Your task to perform on an android device: star an email in the gmail app Image 0: 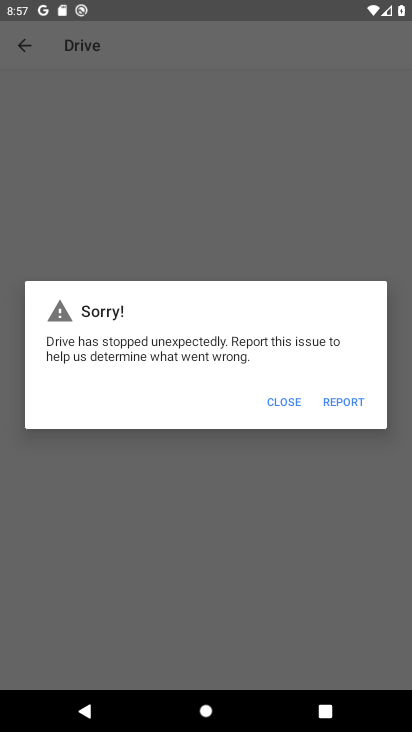
Step 0: press home button
Your task to perform on an android device: star an email in the gmail app Image 1: 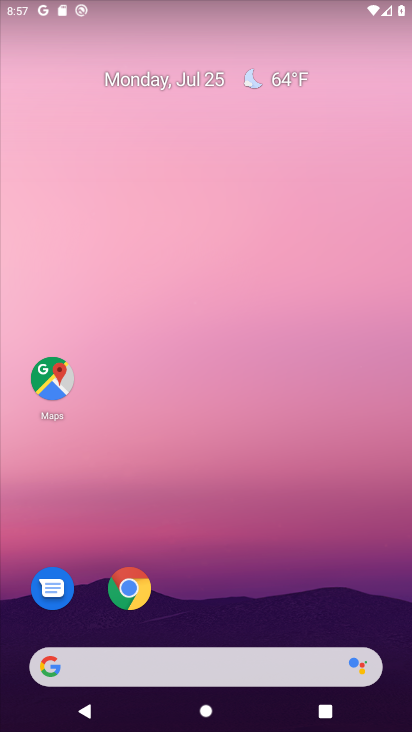
Step 1: drag from (232, 638) to (170, 195)
Your task to perform on an android device: star an email in the gmail app Image 2: 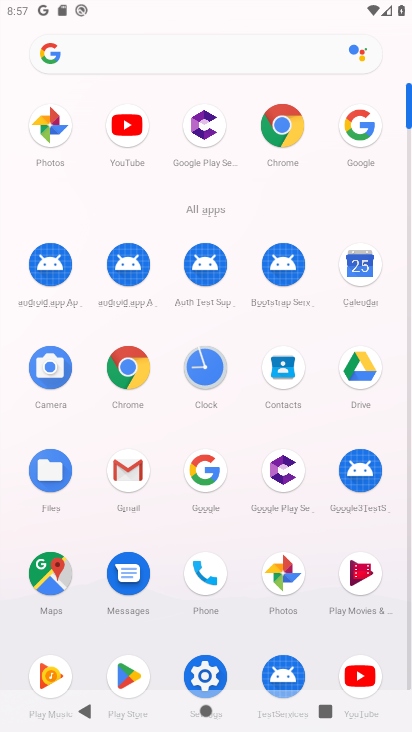
Step 2: click (135, 493)
Your task to perform on an android device: star an email in the gmail app Image 3: 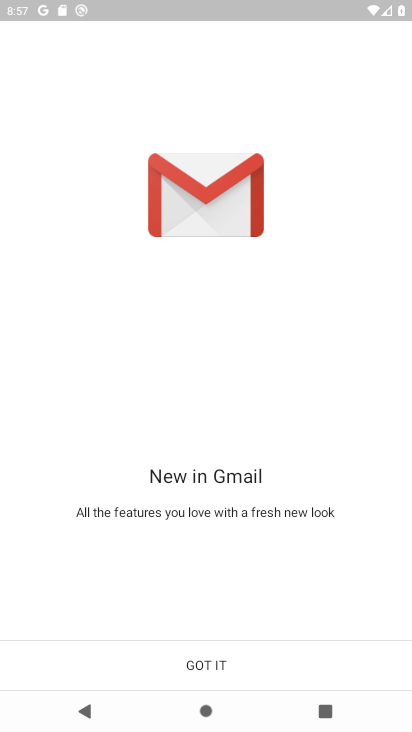
Step 3: click (240, 665)
Your task to perform on an android device: star an email in the gmail app Image 4: 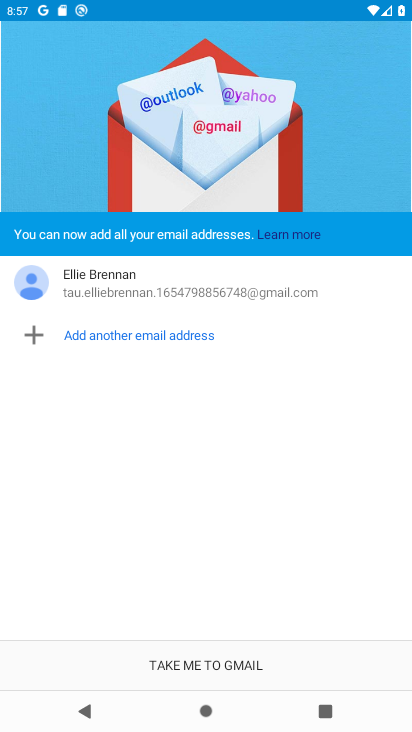
Step 4: click (178, 645)
Your task to perform on an android device: star an email in the gmail app Image 5: 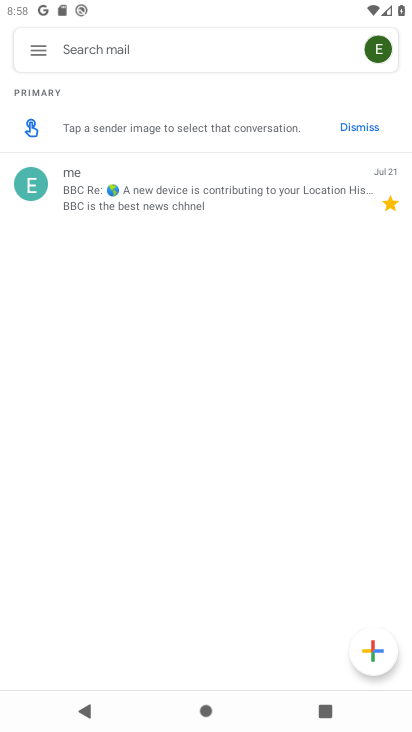
Step 5: task complete